Your task to perform on an android device: Add bose soundlink mini to the cart on amazon, then select checkout. Image 0: 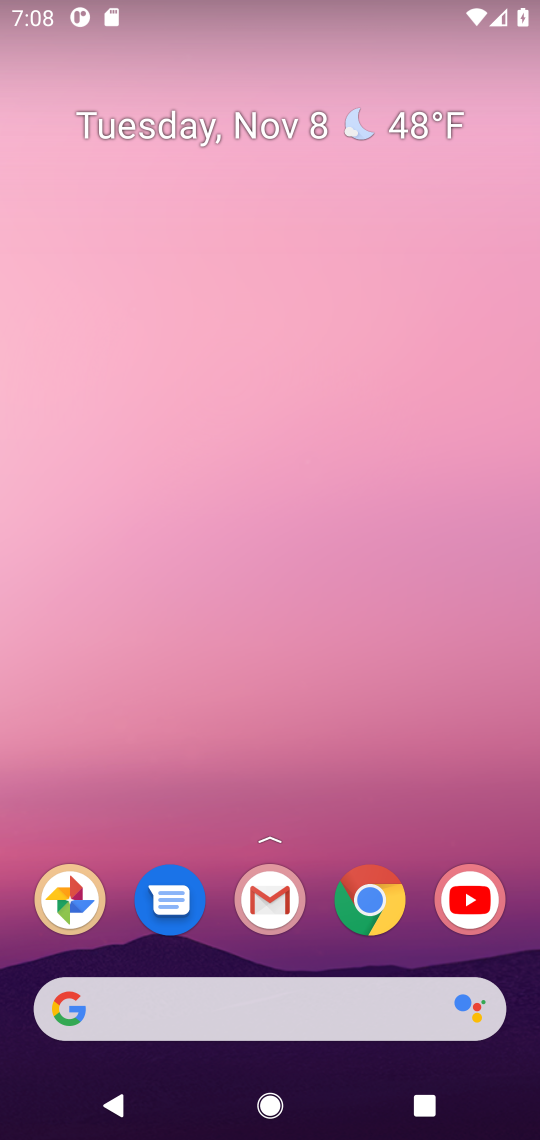
Step 0: drag from (89, 1016) to (334, 79)
Your task to perform on an android device: Add bose soundlink mini to the cart on amazon, then select checkout. Image 1: 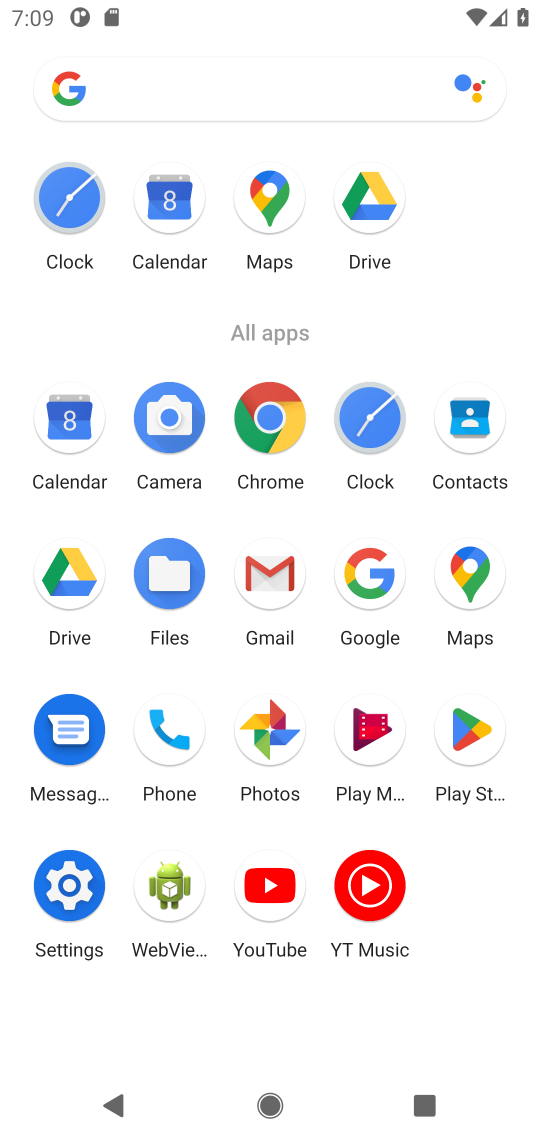
Step 1: click (374, 573)
Your task to perform on an android device: Add bose soundlink mini to the cart on amazon, then select checkout. Image 2: 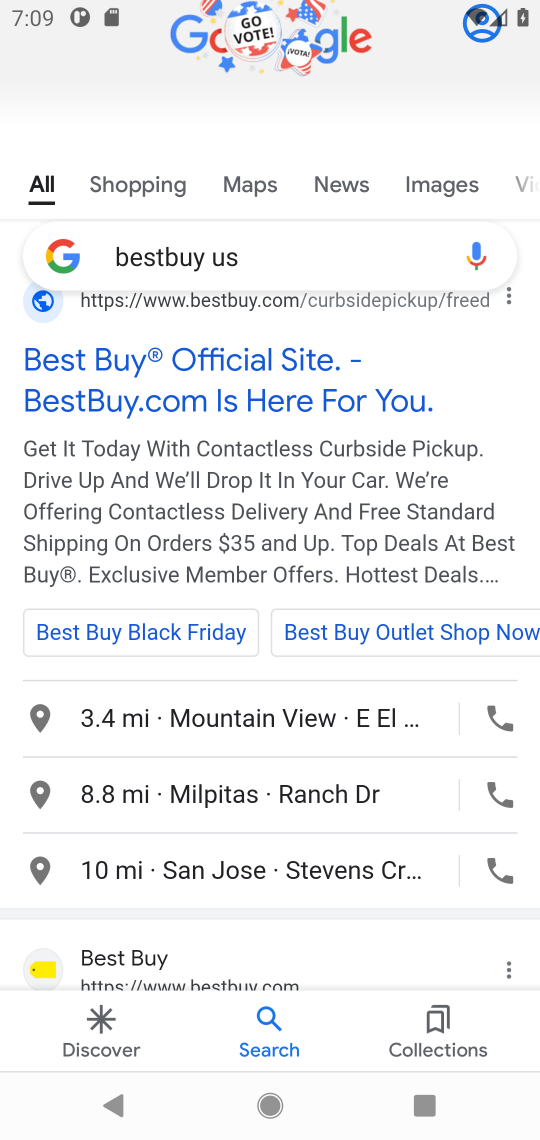
Step 2: click (251, 261)
Your task to perform on an android device: Add bose soundlink mini to the cart on amazon, then select checkout. Image 3: 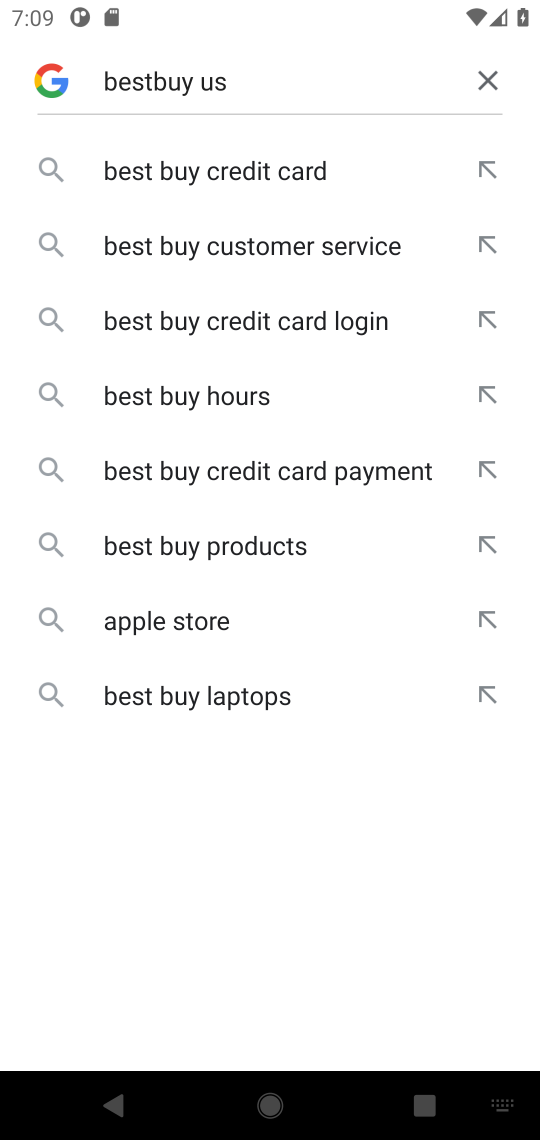
Step 3: click (332, 246)
Your task to perform on an android device: Add bose soundlink mini to the cart on amazon, then select checkout. Image 4: 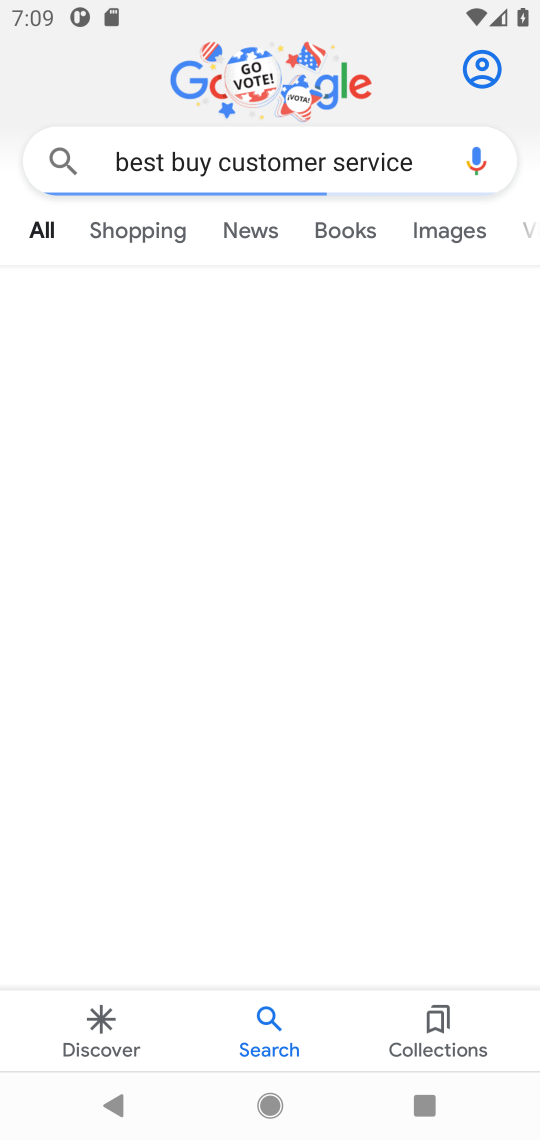
Step 4: click (489, 66)
Your task to perform on an android device: Add bose soundlink mini to the cart on amazon, then select checkout. Image 5: 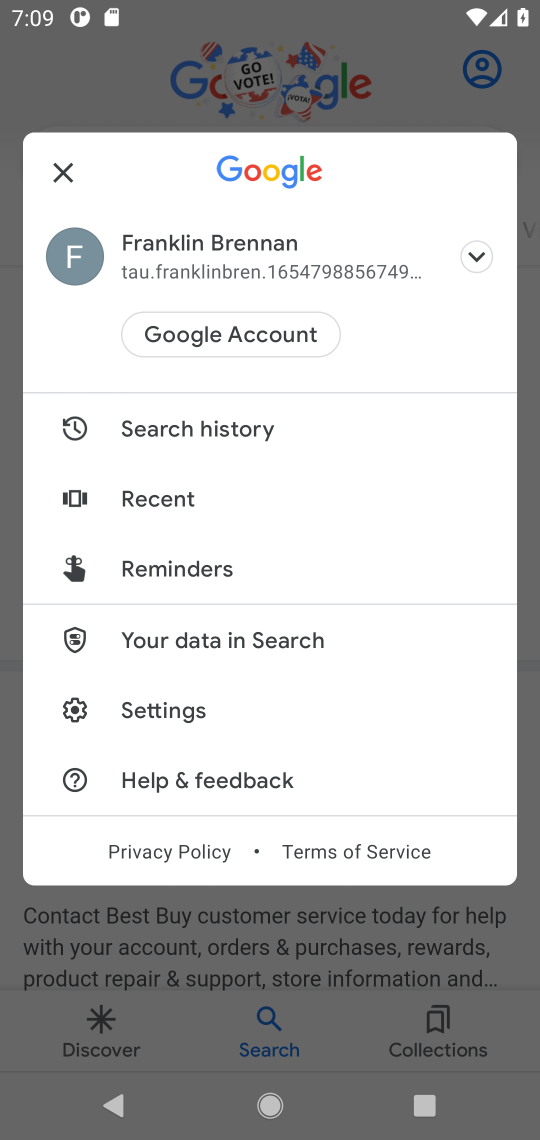
Step 5: press back button
Your task to perform on an android device: Add bose soundlink mini to the cart on amazon, then select checkout. Image 6: 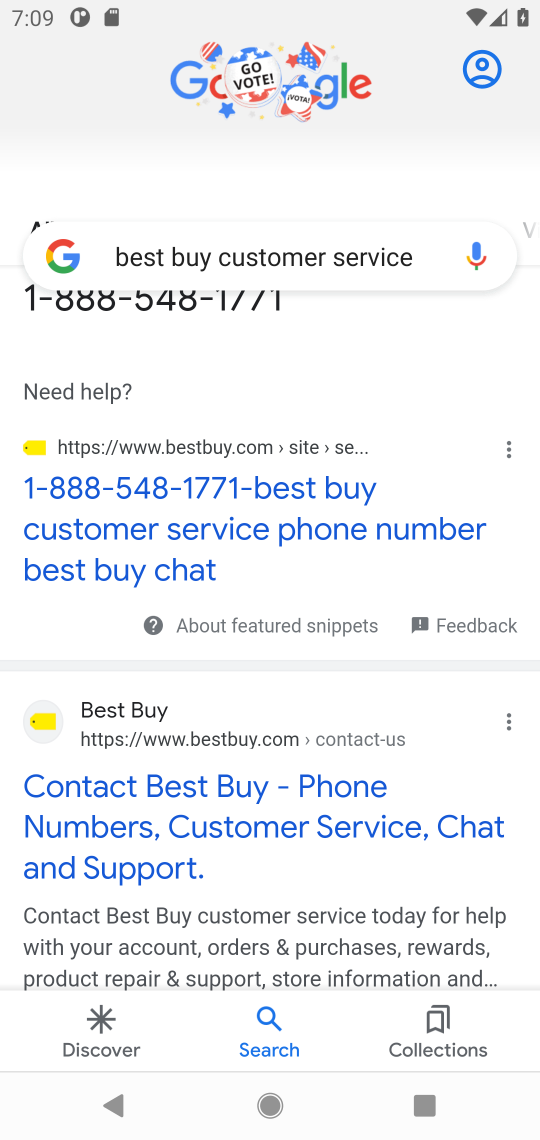
Step 6: click (195, 248)
Your task to perform on an android device: Add bose soundlink mini to the cart on amazon, then select checkout. Image 7: 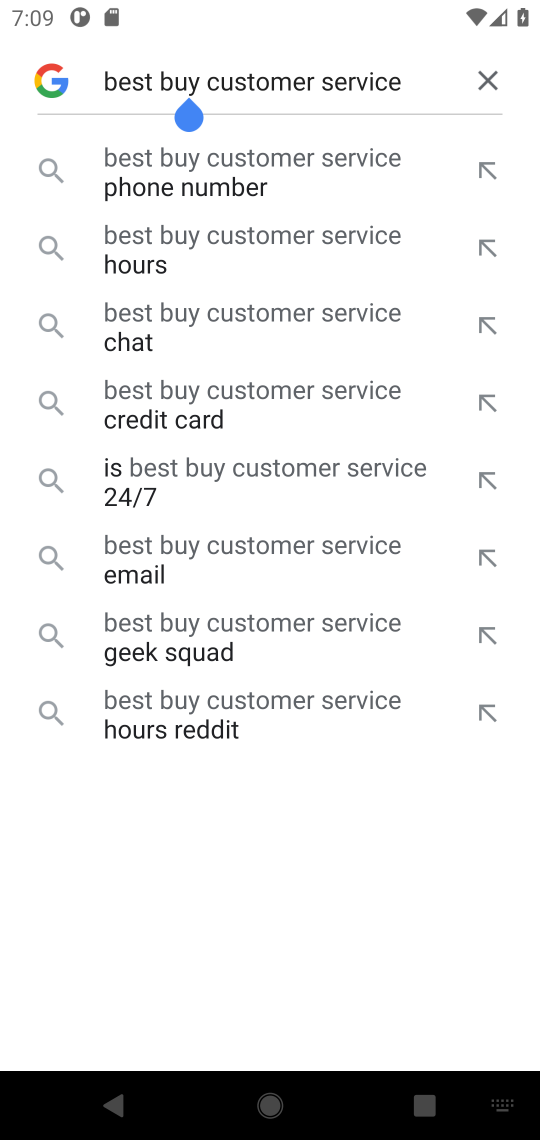
Step 7: click (485, 84)
Your task to perform on an android device: Add bose soundlink mini to the cart on amazon, then select checkout. Image 8: 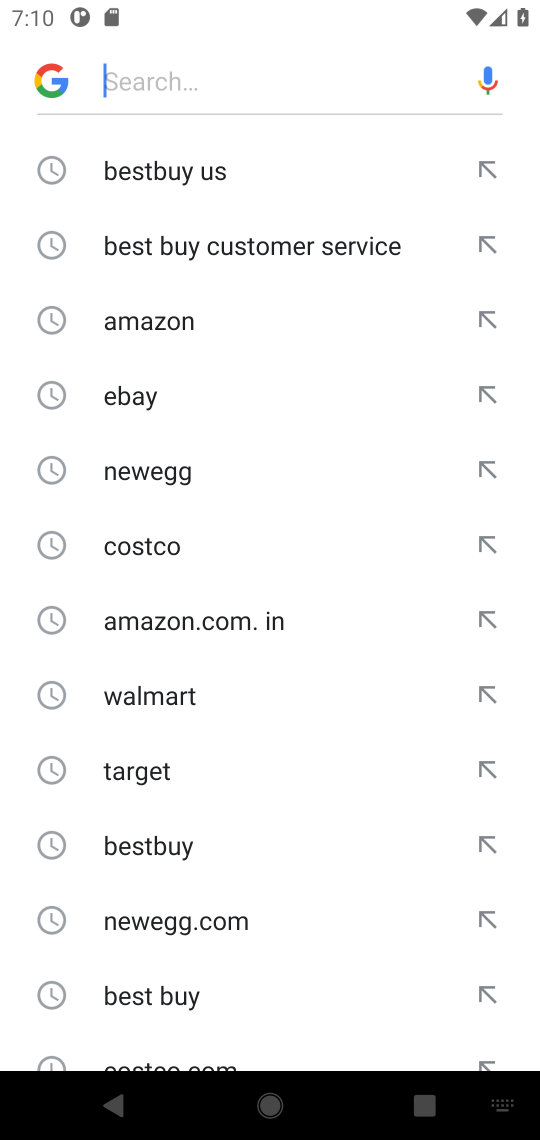
Step 8: click (194, 76)
Your task to perform on an android device: Add bose soundlink mini to the cart on amazon, then select checkout. Image 9: 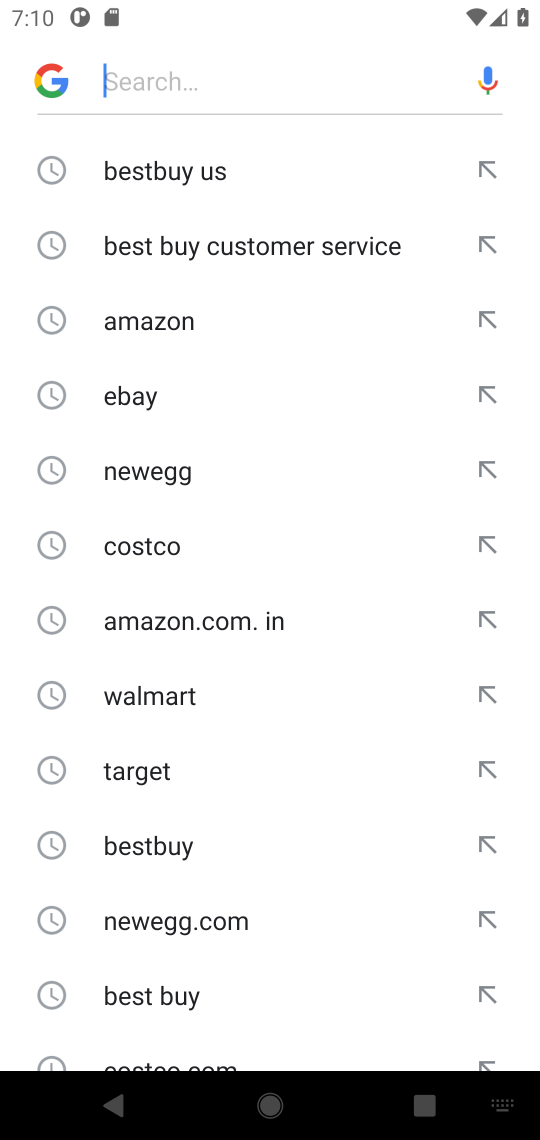
Step 9: type "amazon "
Your task to perform on an android device: Add bose soundlink mini to the cart on amazon, then select checkout. Image 10: 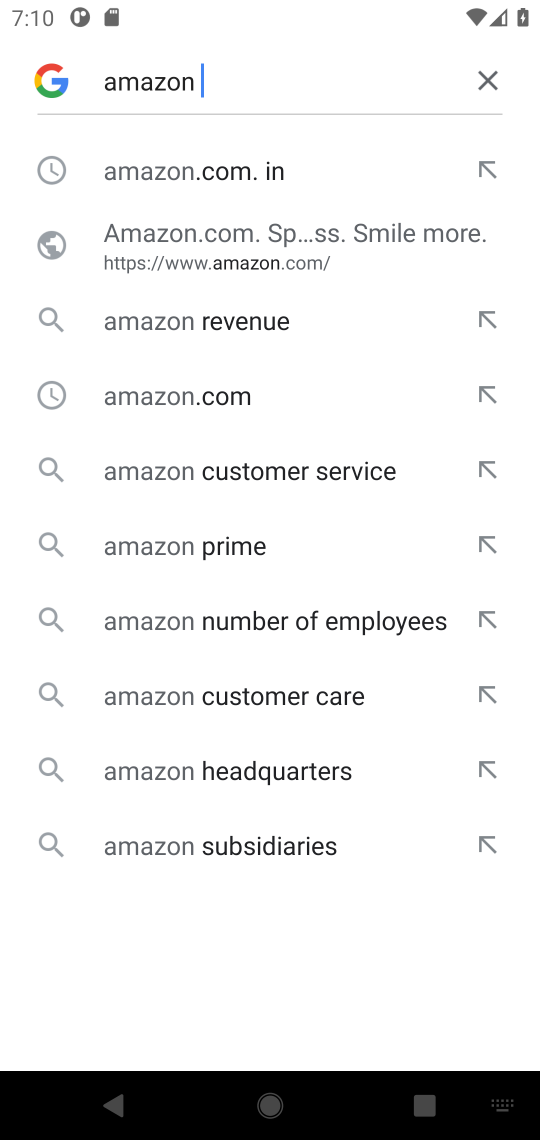
Step 10: click (127, 172)
Your task to perform on an android device: Add bose soundlink mini to the cart on amazon, then select checkout. Image 11: 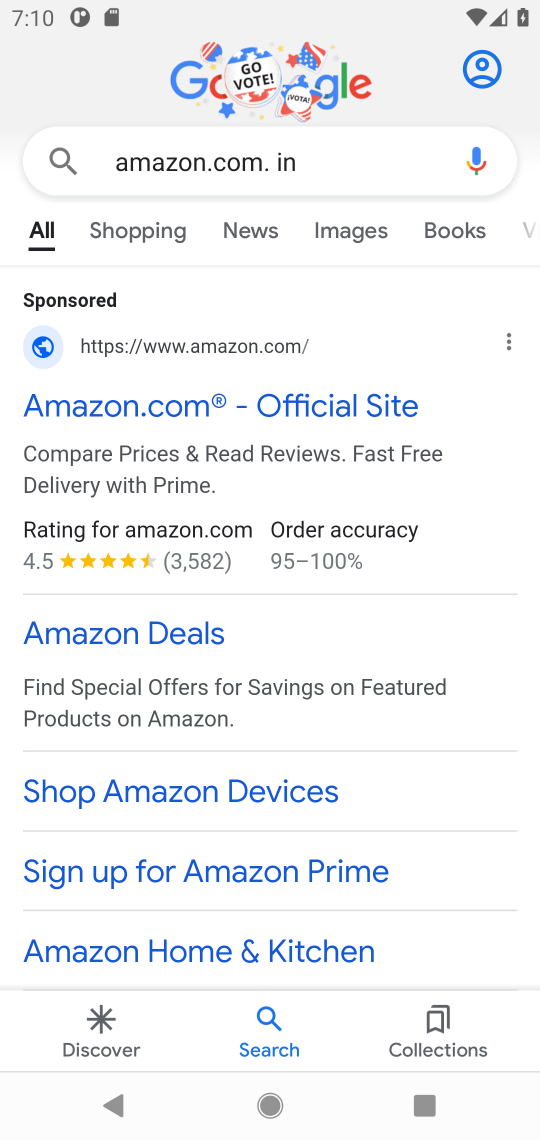
Step 11: drag from (92, 686) to (191, 370)
Your task to perform on an android device: Add bose soundlink mini to the cart on amazon, then select checkout. Image 12: 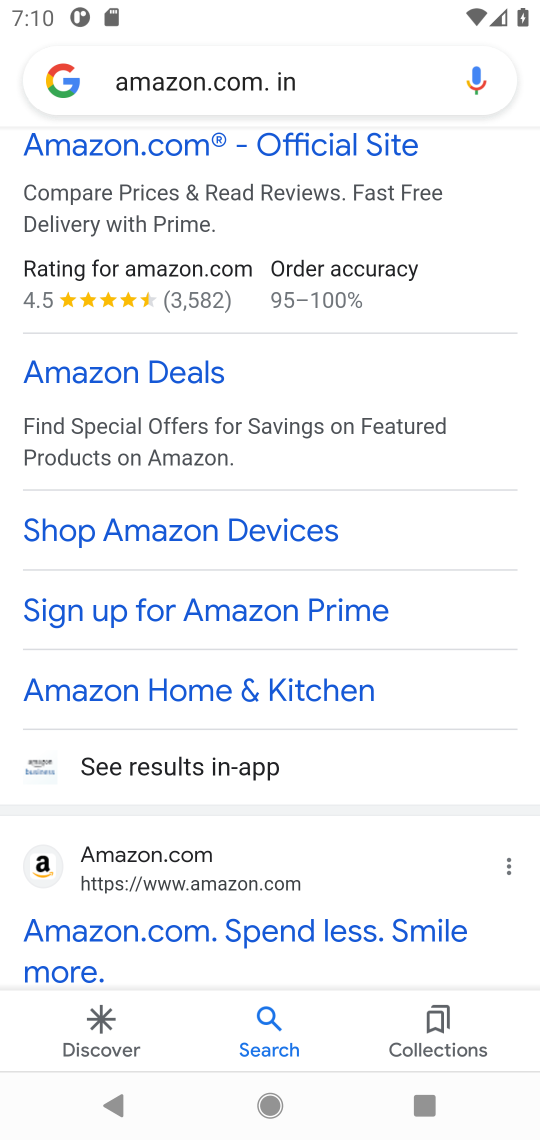
Step 12: drag from (121, 865) to (127, 626)
Your task to perform on an android device: Add bose soundlink mini to the cart on amazon, then select checkout. Image 13: 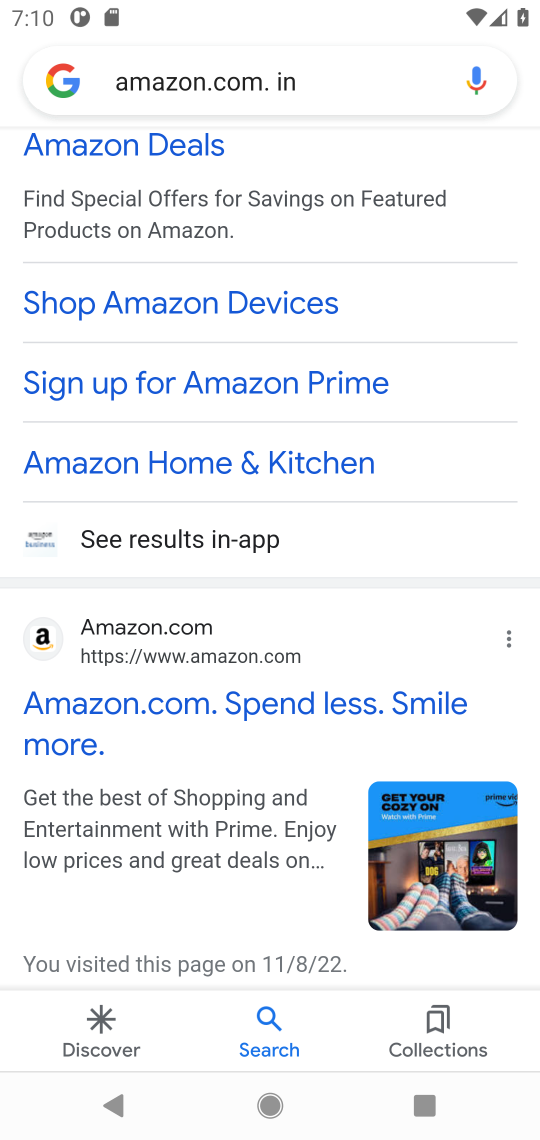
Step 13: click (43, 635)
Your task to perform on an android device: Add bose soundlink mini to the cart on amazon, then select checkout. Image 14: 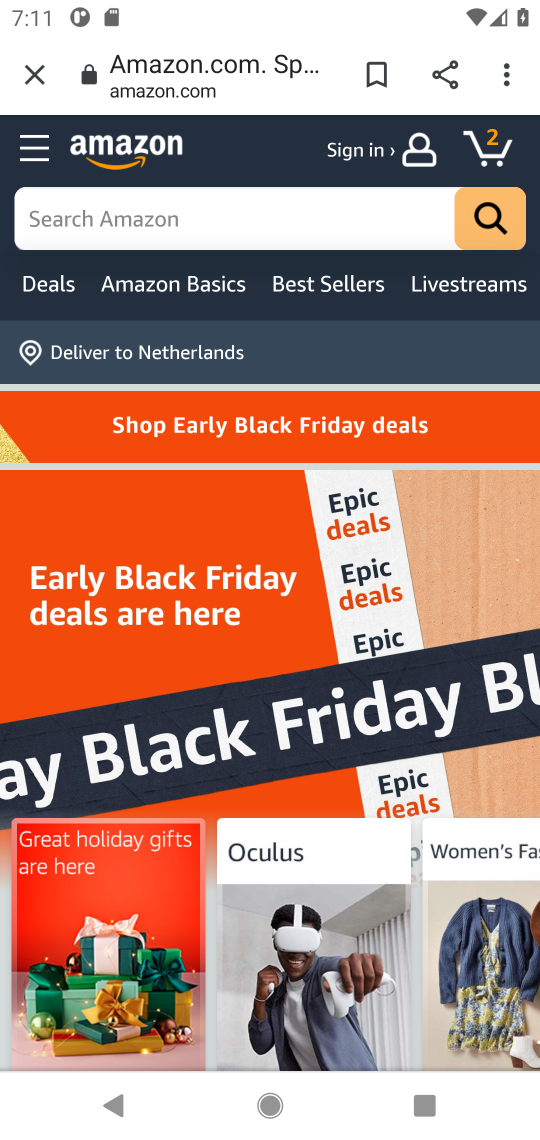
Step 14: click (115, 217)
Your task to perform on an android device: Add bose soundlink mini to the cart on amazon, then select checkout. Image 15: 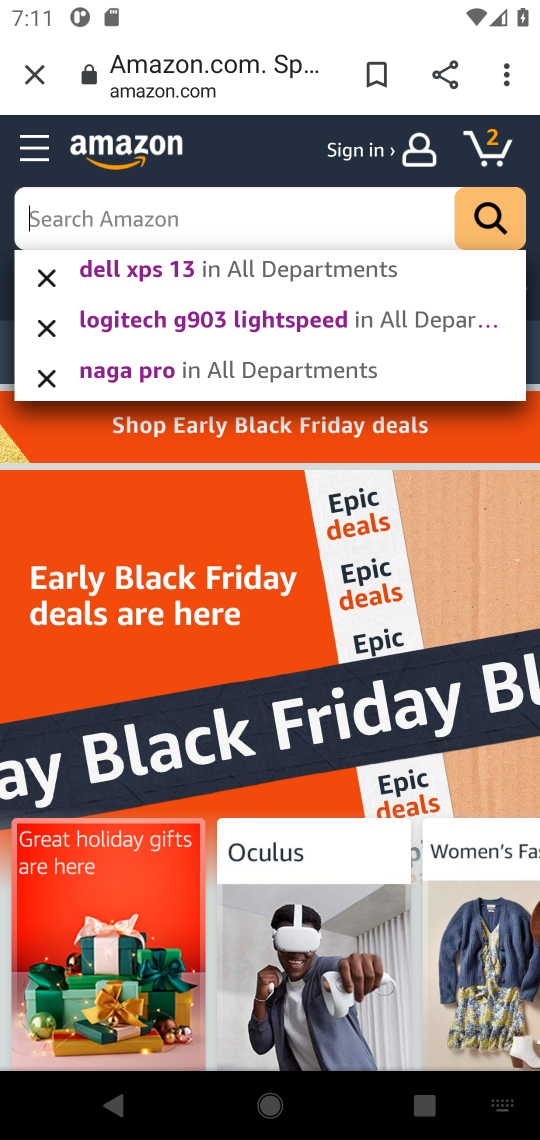
Step 15: type "bose soundlink  "
Your task to perform on an android device: Add bose soundlink mini to the cart on amazon, then select checkout. Image 16: 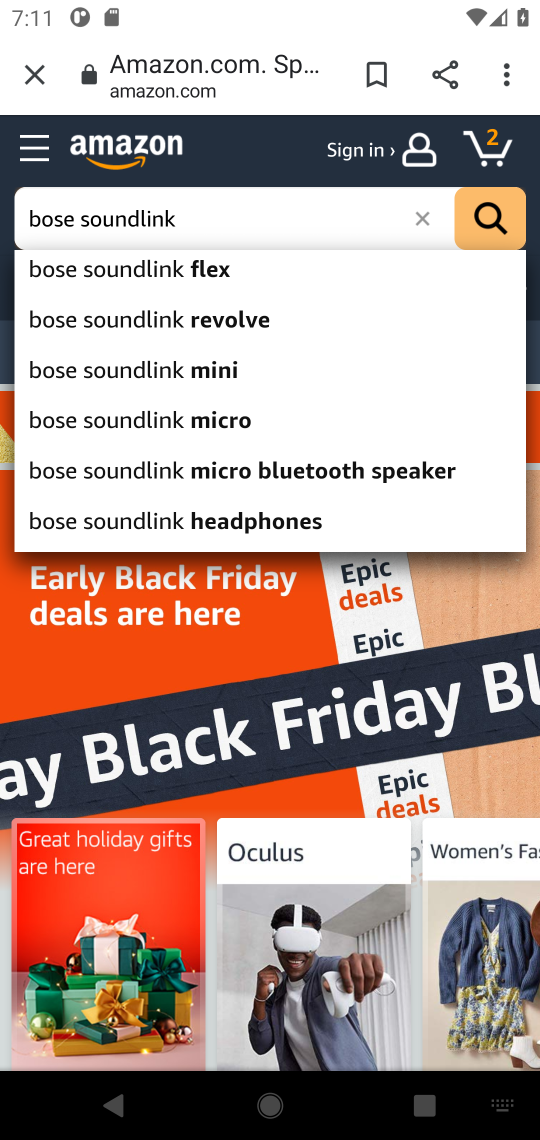
Step 16: click (130, 259)
Your task to perform on an android device: Add bose soundlink mini to the cart on amazon, then select checkout. Image 17: 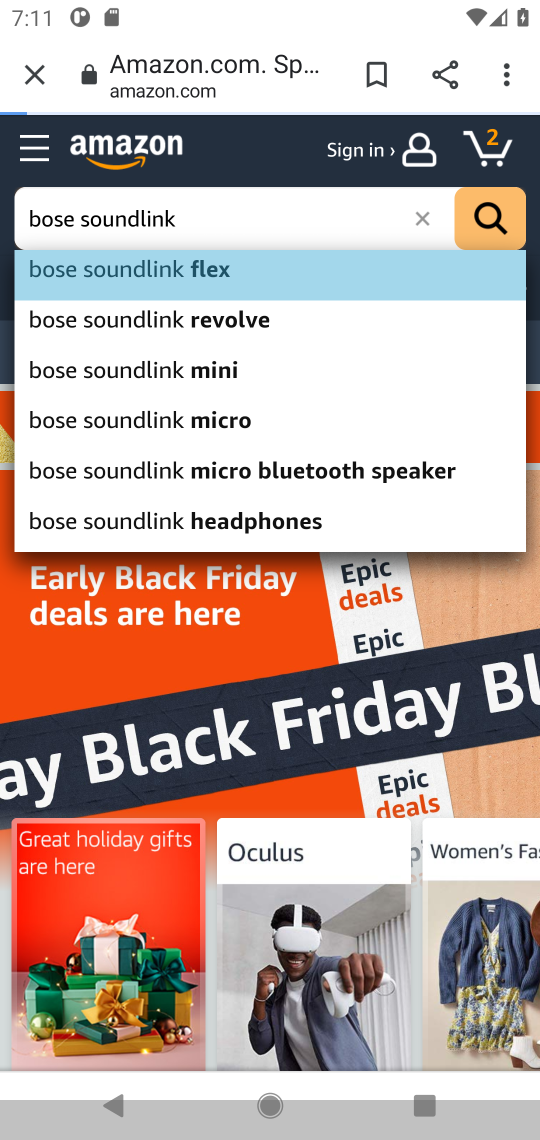
Step 17: click (184, 359)
Your task to perform on an android device: Add bose soundlink mini to the cart on amazon, then select checkout. Image 18: 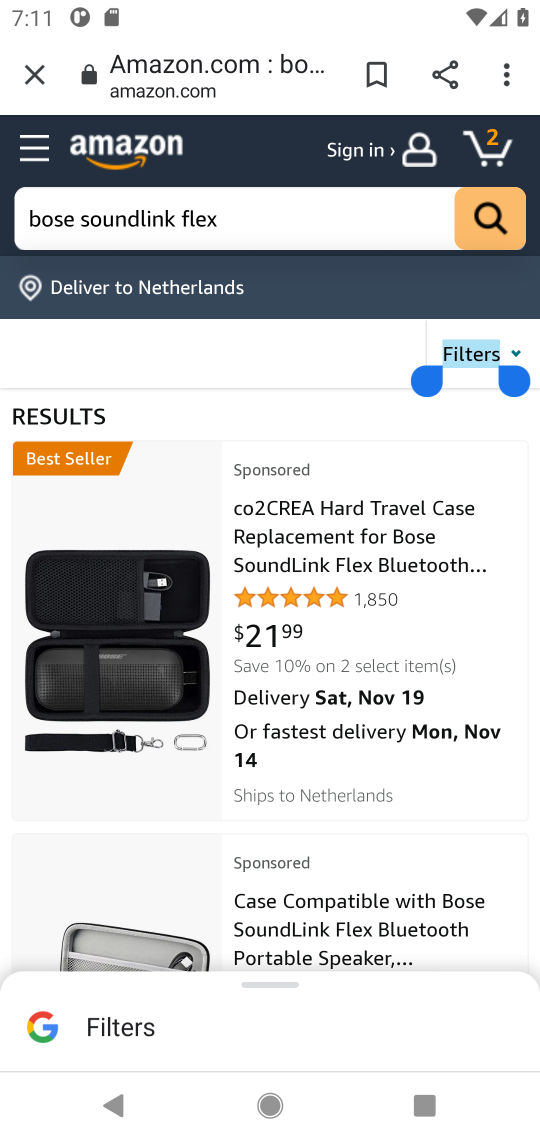
Step 18: click (491, 216)
Your task to perform on an android device: Add bose soundlink mini to the cart on amazon, then select checkout. Image 19: 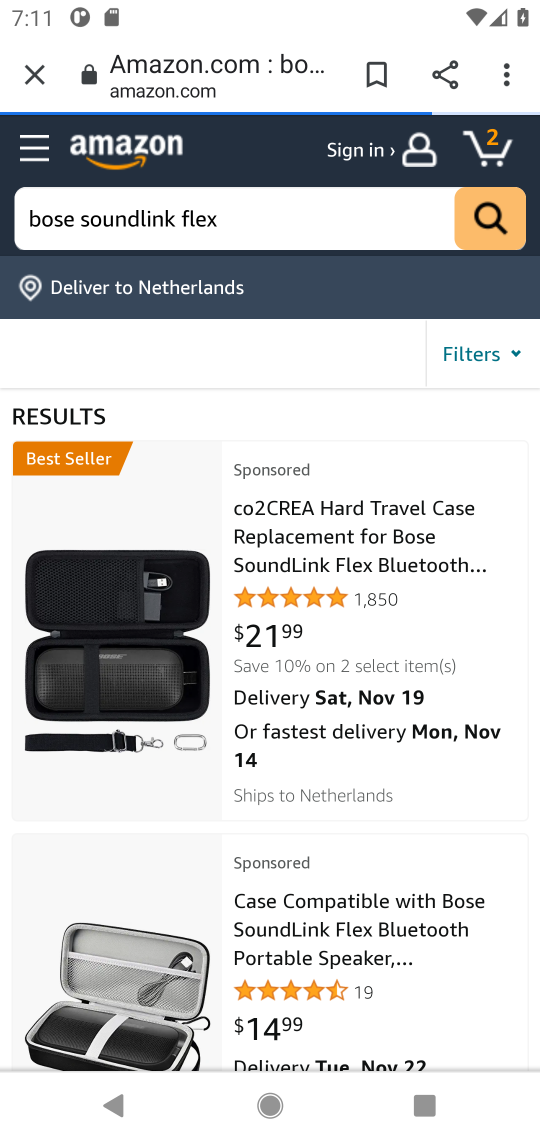
Step 19: click (332, 216)
Your task to perform on an android device: Add bose soundlink mini to the cart on amazon, then select checkout. Image 20: 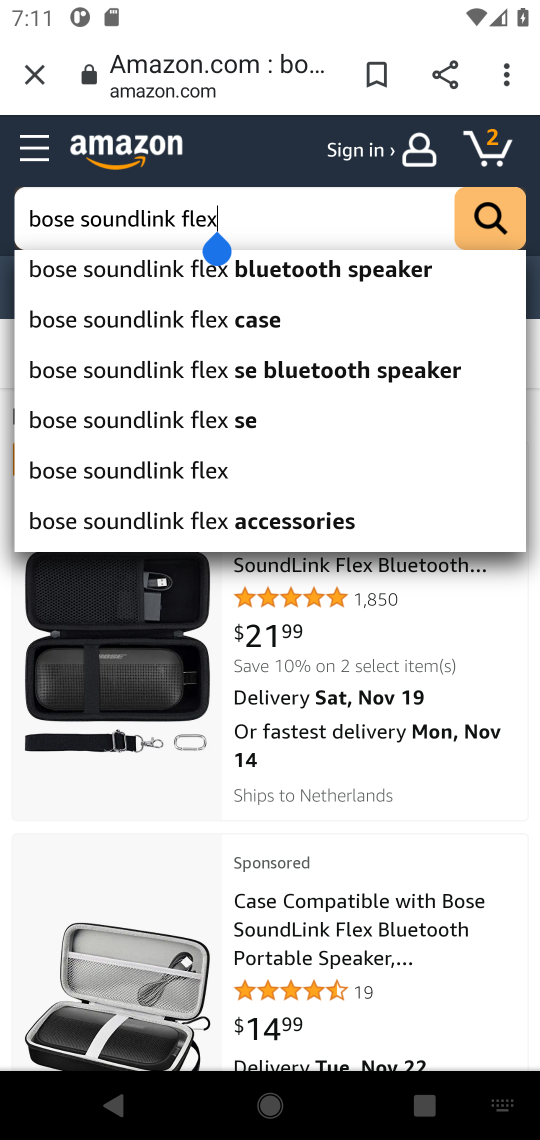
Step 20: click (390, 213)
Your task to perform on an android device: Add bose soundlink mini to the cart on amazon, then select checkout. Image 21: 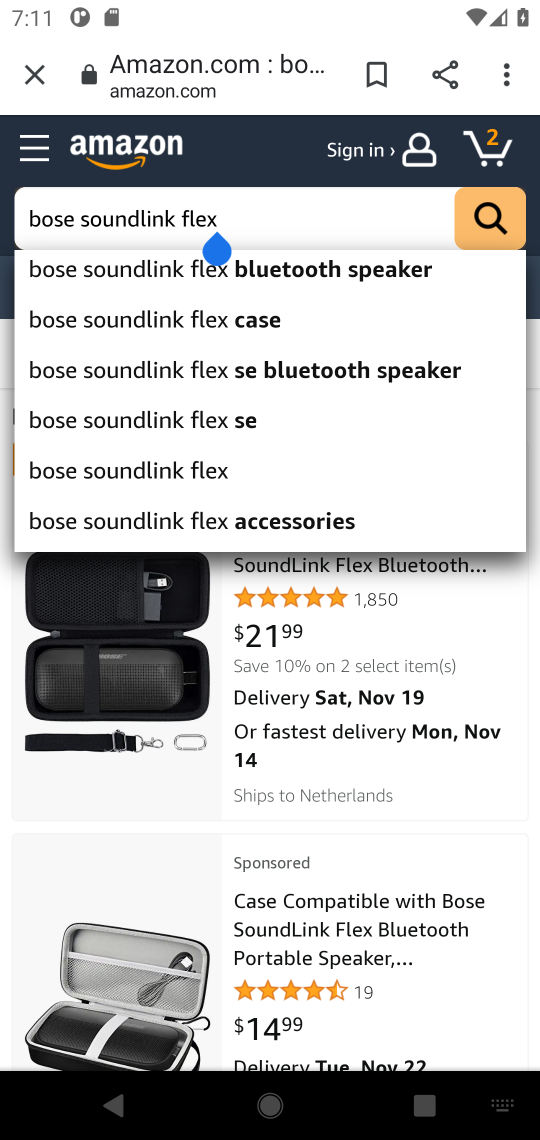
Step 21: click (373, 224)
Your task to perform on an android device: Add bose soundlink mini to the cart on amazon, then select checkout. Image 22: 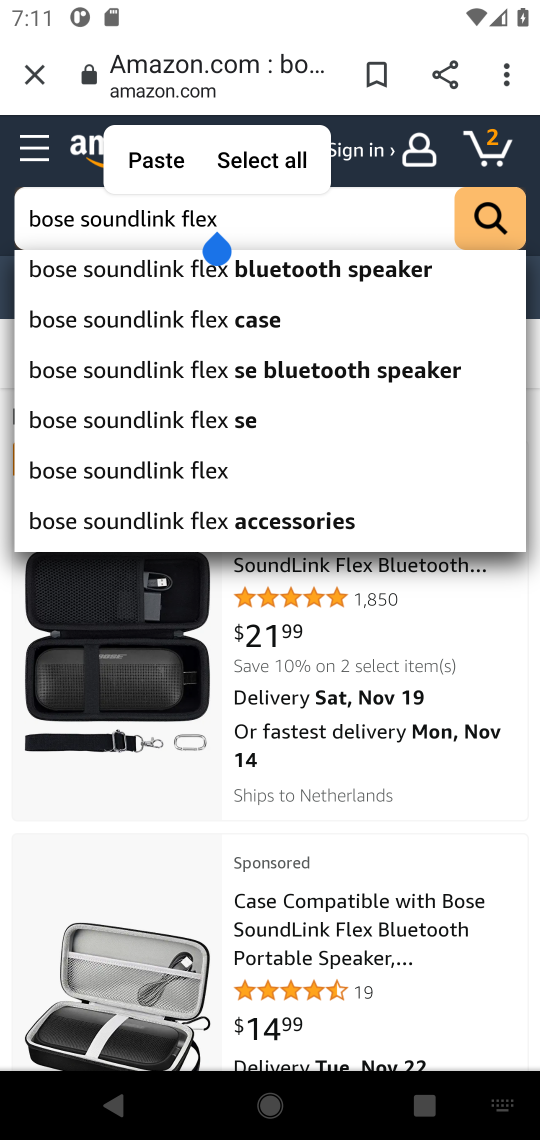
Step 22: click (186, 204)
Your task to perform on an android device: Add bose soundlink mini to the cart on amazon, then select checkout. Image 23: 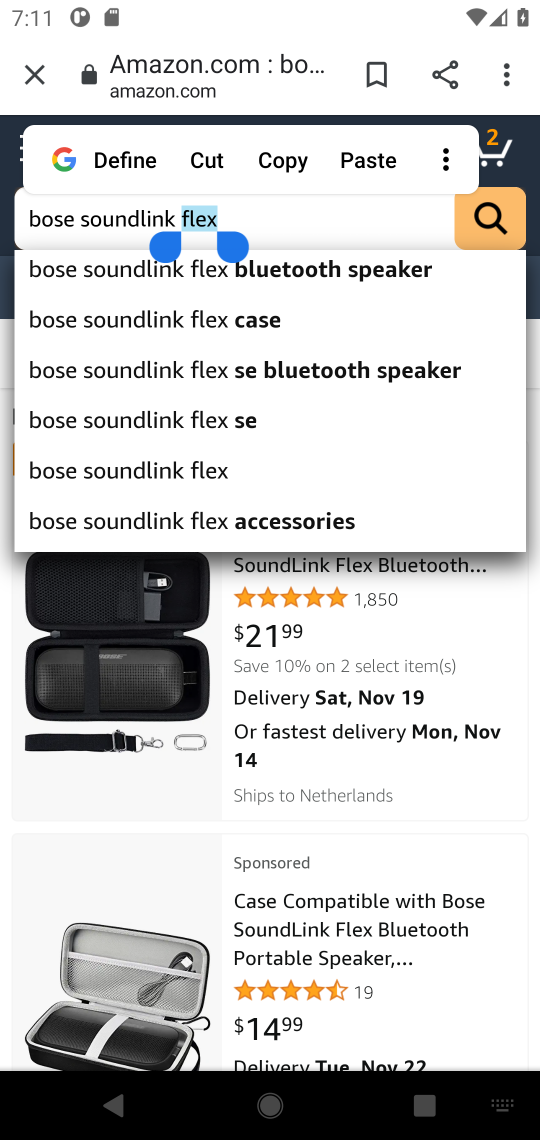
Step 23: click (186, 222)
Your task to perform on an android device: Add bose soundlink mini to the cart on amazon, then select checkout. Image 24: 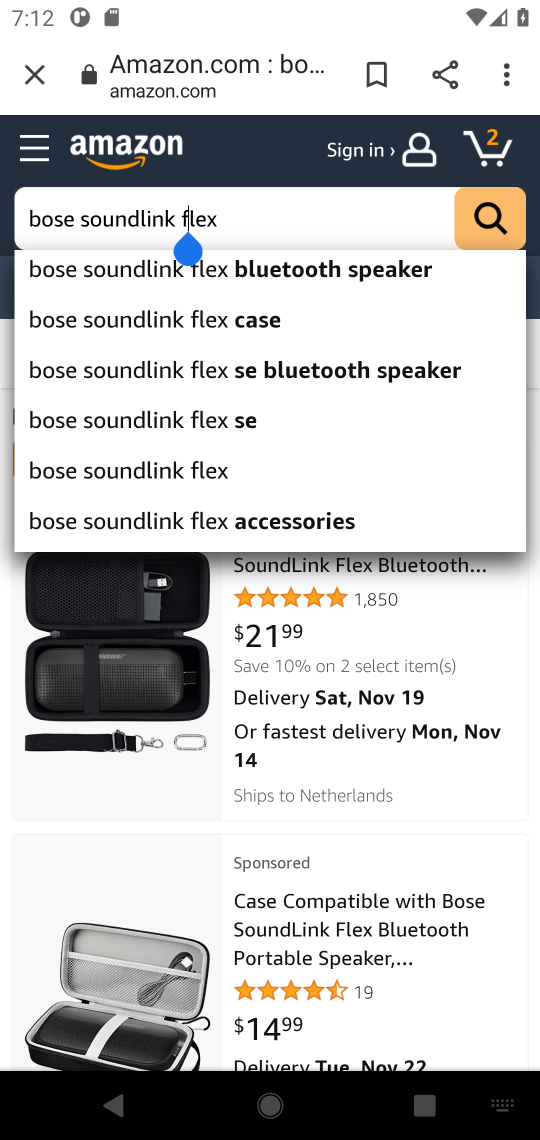
Step 24: click (196, 158)
Your task to perform on an android device: Add bose soundlink mini to the cart on amazon, then select checkout. Image 25: 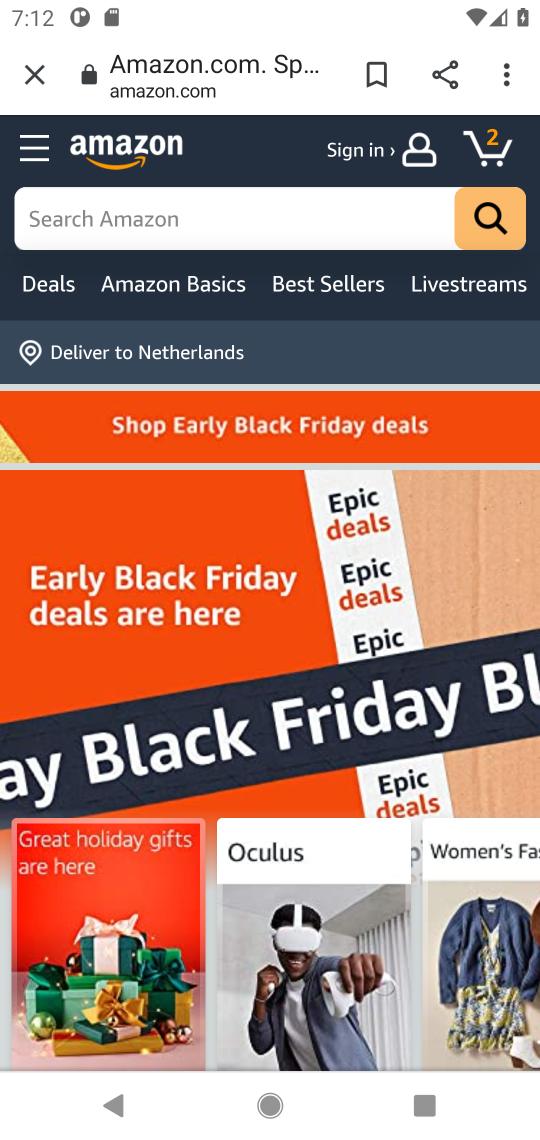
Step 25: click (197, 213)
Your task to perform on an android device: Add bose soundlink mini to the cart on amazon, then select checkout. Image 26: 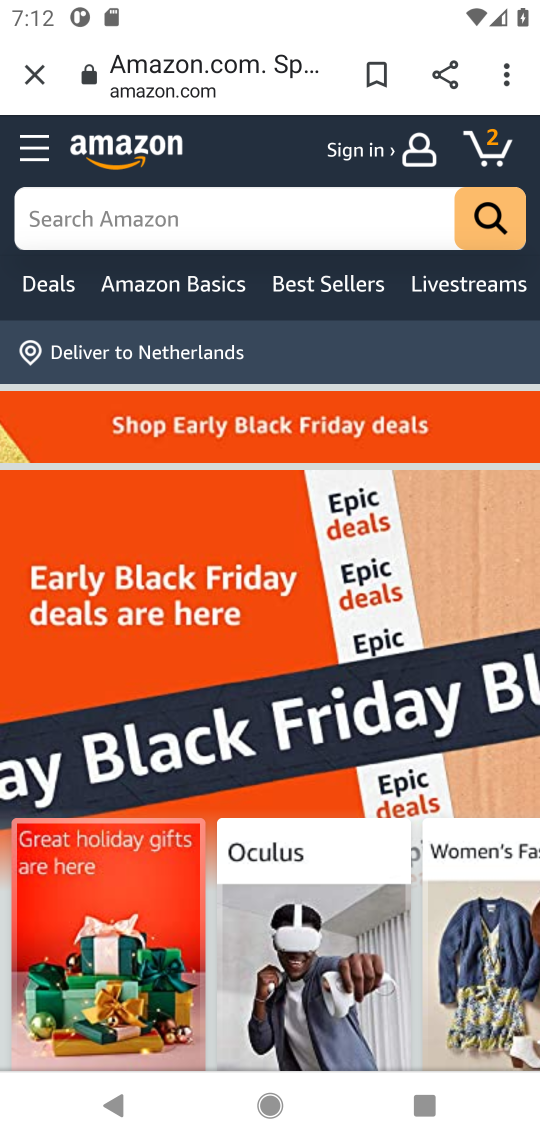
Step 26: click (197, 213)
Your task to perform on an android device: Add bose soundlink mini to the cart on amazon, then select checkout. Image 27: 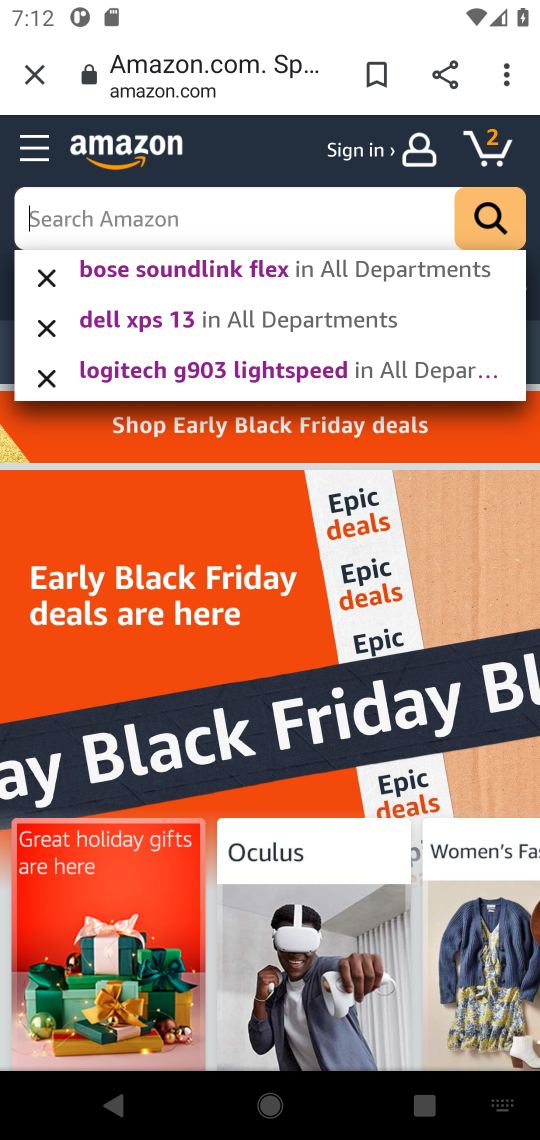
Step 27: click (264, 191)
Your task to perform on an android device: Add bose soundlink mini to the cart on amazon, then select checkout. Image 28: 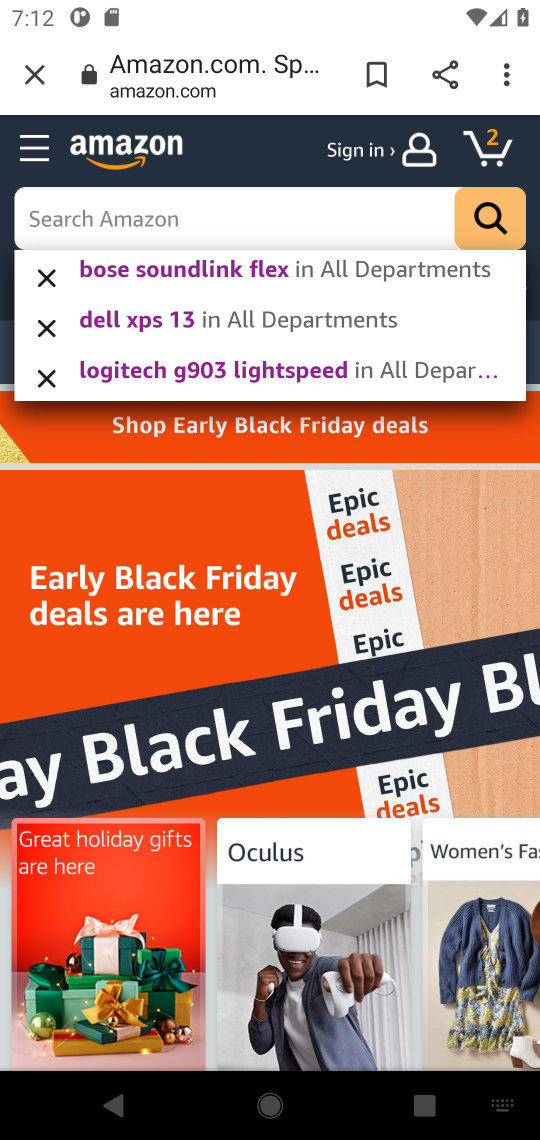
Step 28: type " bose soundlink mini  "
Your task to perform on an android device: Add bose soundlink mini to the cart on amazon, then select checkout. Image 29: 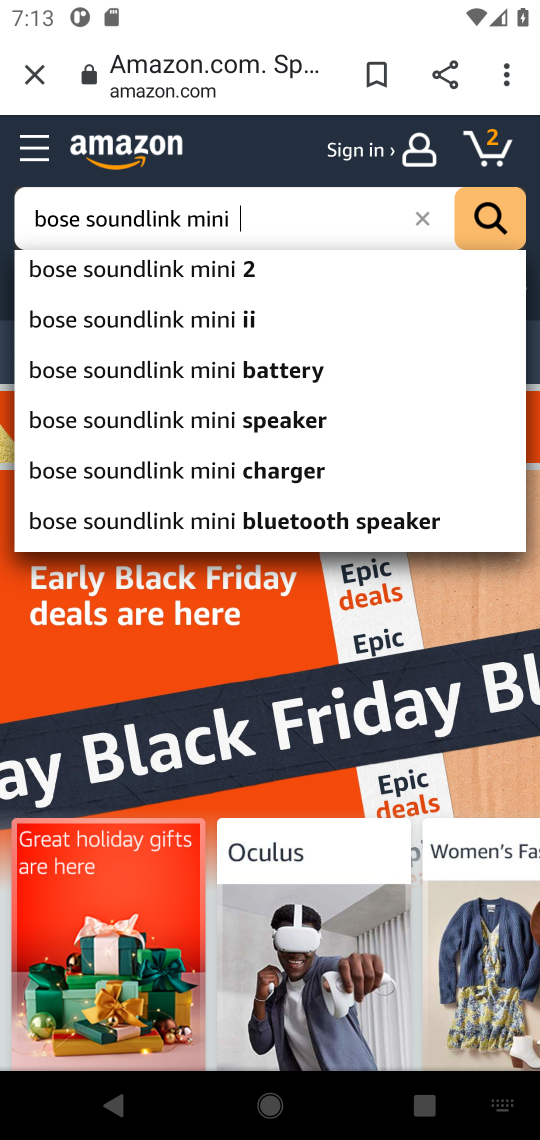
Step 29: click (201, 256)
Your task to perform on an android device: Add bose soundlink mini to the cart on amazon, then select checkout. Image 30: 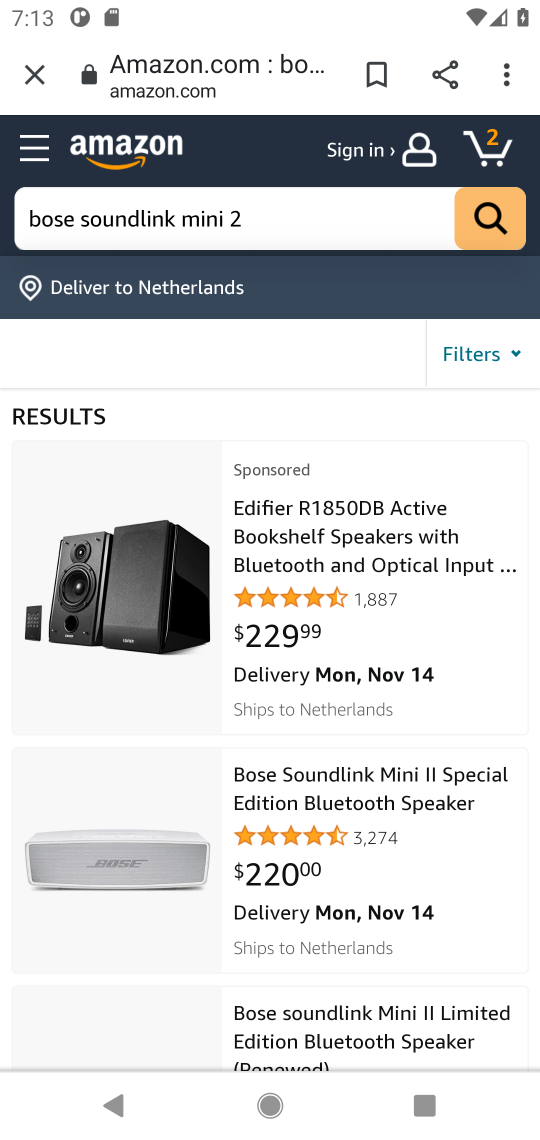
Step 30: click (297, 826)
Your task to perform on an android device: Add bose soundlink mini to the cart on amazon, then select checkout. Image 31: 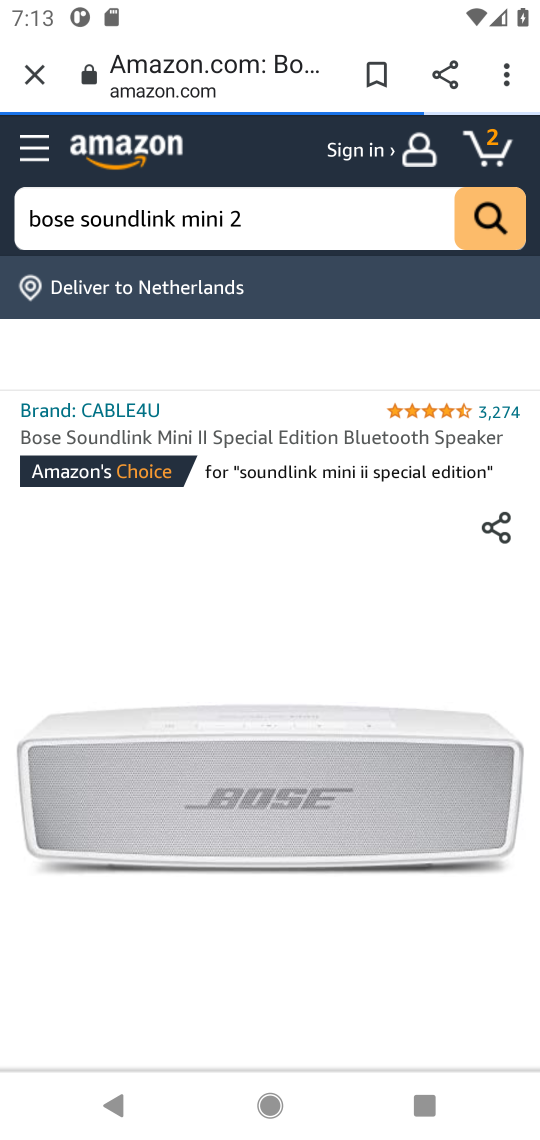
Step 31: drag from (352, 914) to (393, 333)
Your task to perform on an android device: Add bose soundlink mini to the cart on amazon, then select checkout. Image 32: 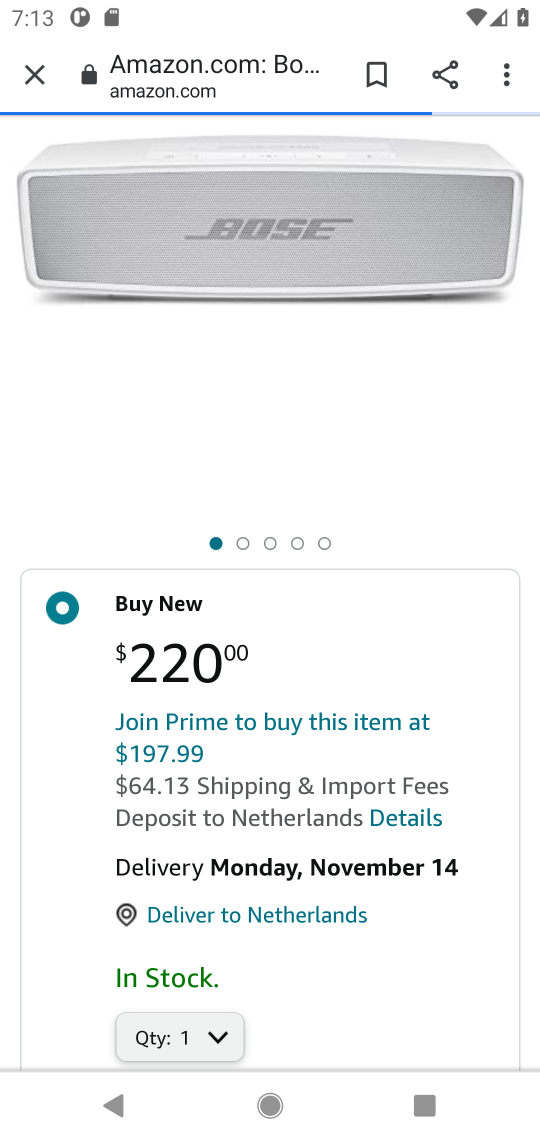
Step 32: drag from (262, 892) to (291, 469)
Your task to perform on an android device: Add bose soundlink mini to the cart on amazon, then select checkout. Image 33: 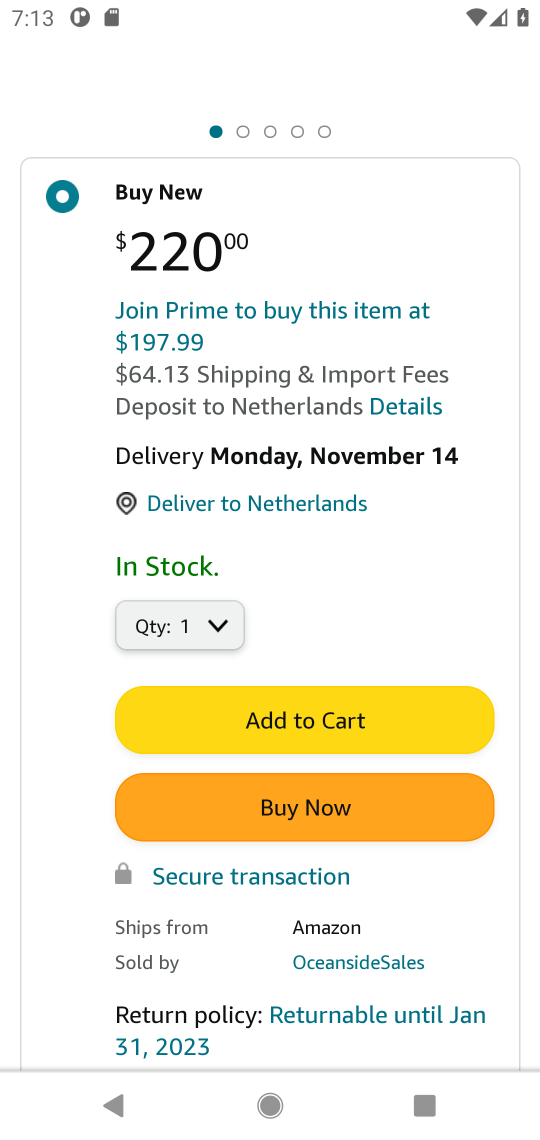
Step 33: click (330, 713)
Your task to perform on an android device: Add bose soundlink mini to the cart on amazon, then select checkout. Image 34: 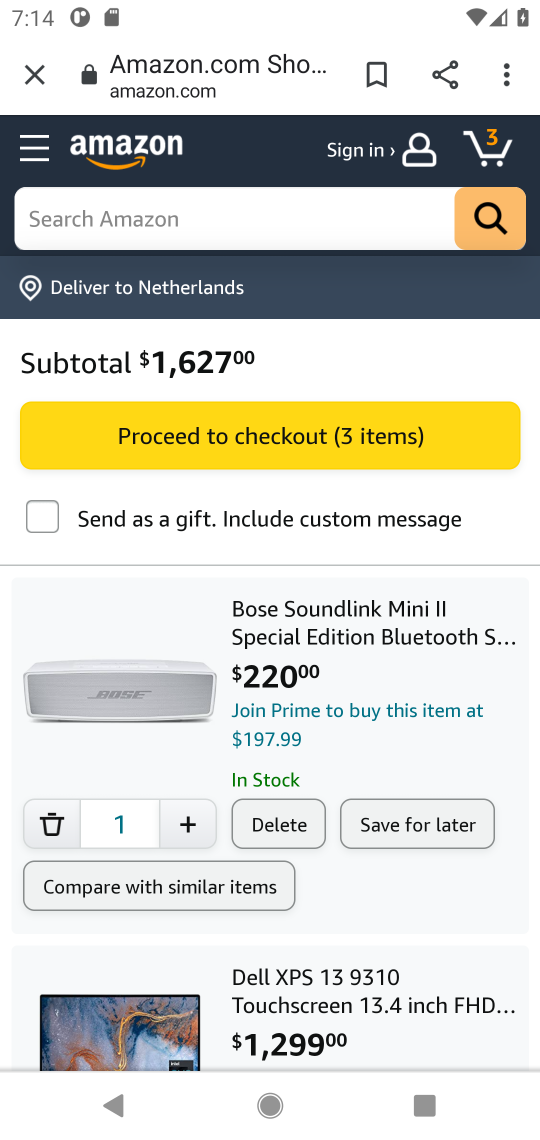
Step 34: task complete